Your task to perform on an android device: Is it going to rain today? Image 0: 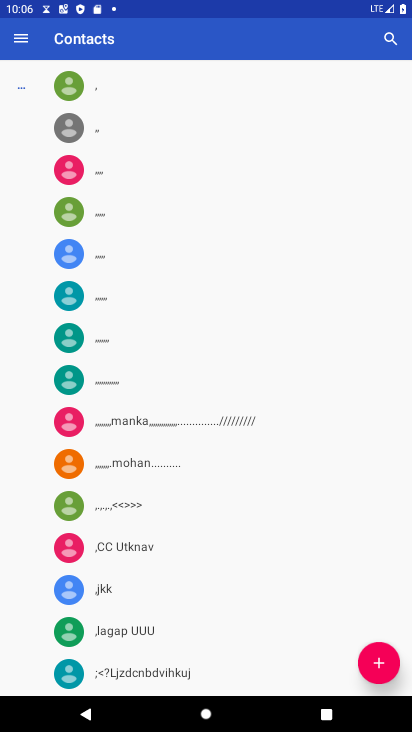
Step 0: press home button
Your task to perform on an android device: Is it going to rain today? Image 1: 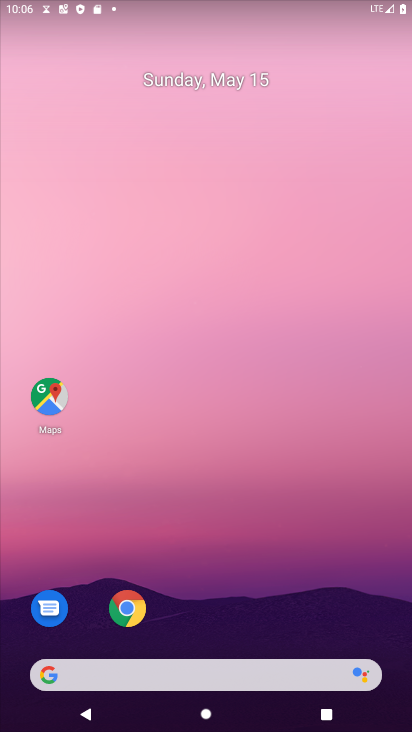
Step 1: drag from (321, 489) to (268, 76)
Your task to perform on an android device: Is it going to rain today? Image 2: 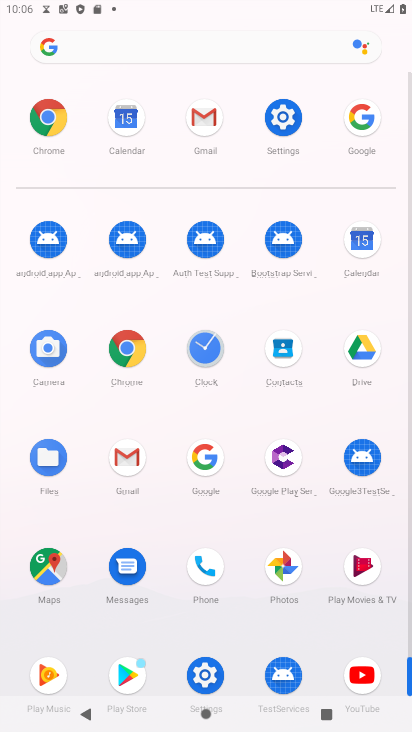
Step 2: click (375, 132)
Your task to perform on an android device: Is it going to rain today? Image 3: 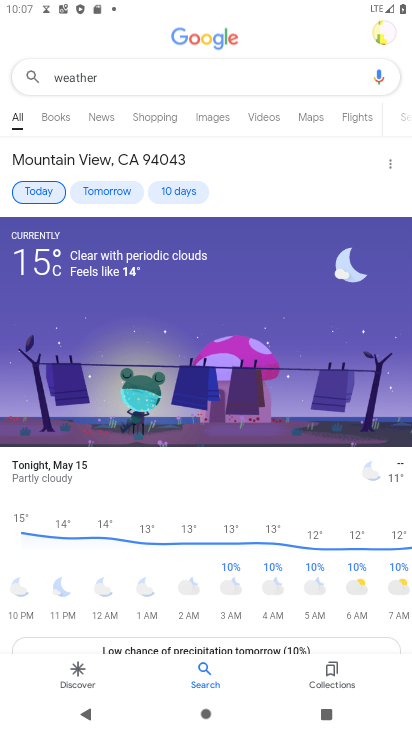
Step 3: task complete